Your task to perform on an android device: change timer sound Image 0: 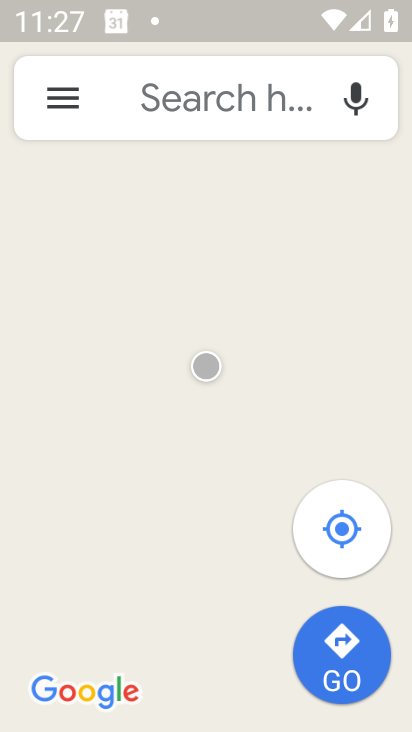
Step 0: press home button
Your task to perform on an android device: change timer sound Image 1: 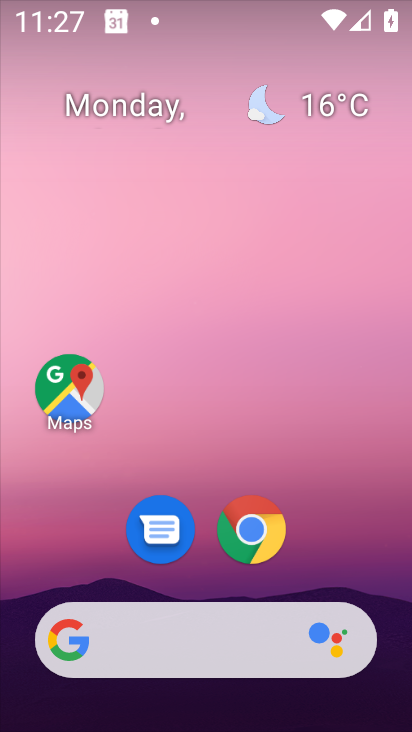
Step 1: drag from (198, 586) to (294, 10)
Your task to perform on an android device: change timer sound Image 2: 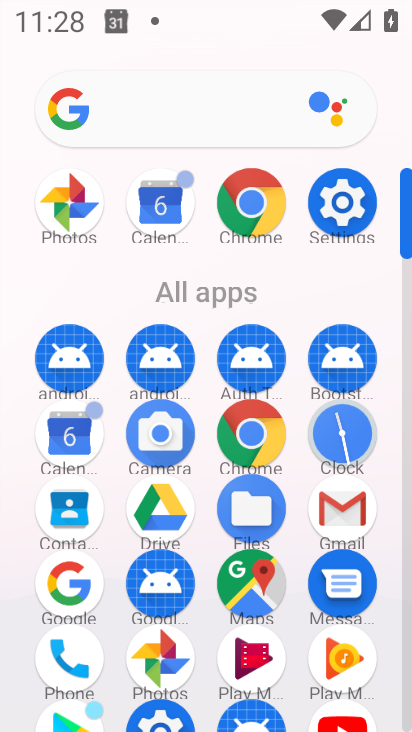
Step 2: click (351, 436)
Your task to perform on an android device: change timer sound Image 3: 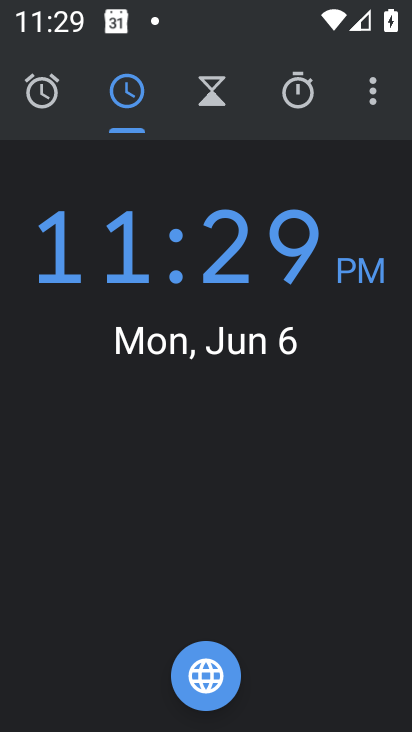
Step 3: click (378, 87)
Your task to perform on an android device: change timer sound Image 4: 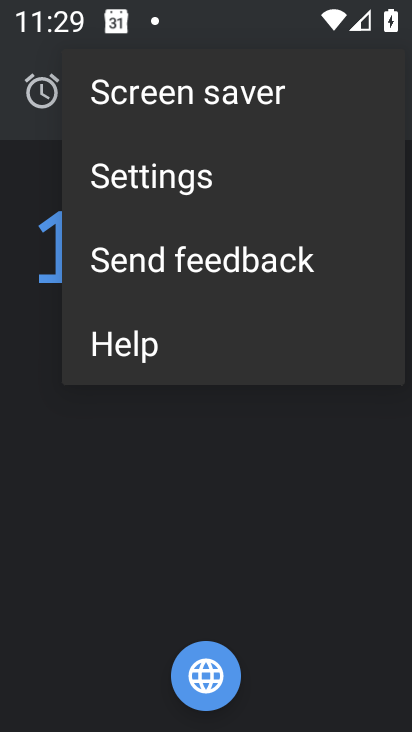
Step 4: click (204, 163)
Your task to perform on an android device: change timer sound Image 5: 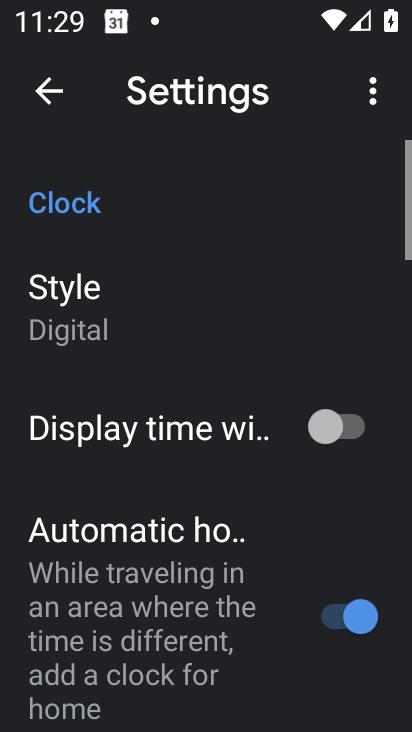
Step 5: drag from (231, 560) to (256, 112)
Your task to perform on an android device: change timer sound Image 6: 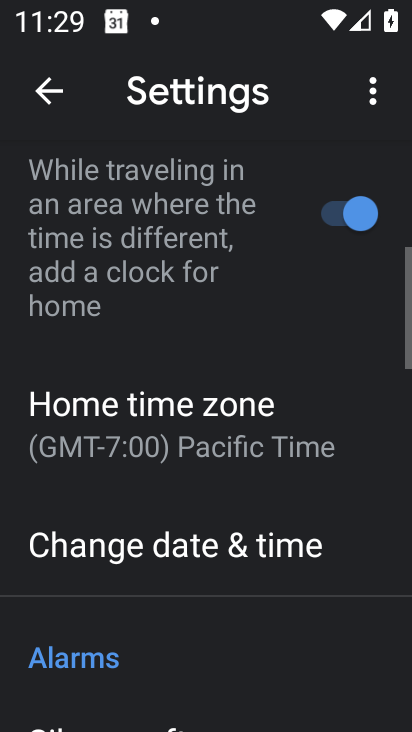
Step 6: drag from (137, 560) to (268, 93)
Your task to perform on an android device: change timer sound Image 7: 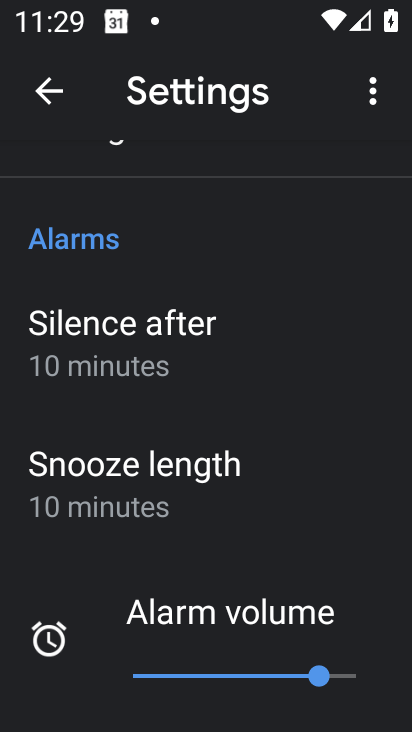
Step 7: drag from (230, 595) to (280, 208)
Your task to perform on an android device: change timer sound Image 8: 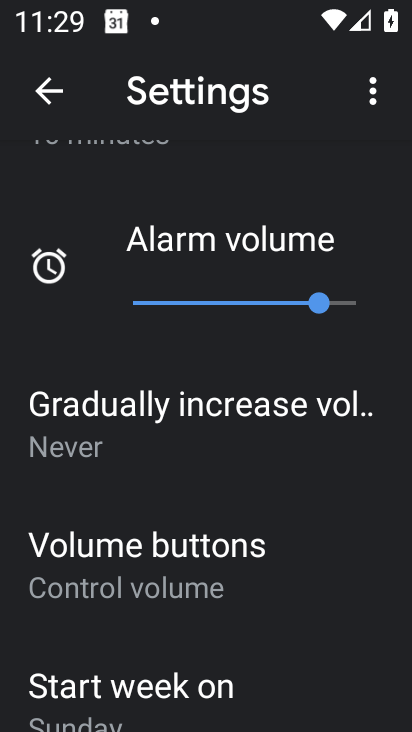
Step 8: drag from (187, 682) to (208, 299)
Your task to perform on an android device: change timer sound Image 9: 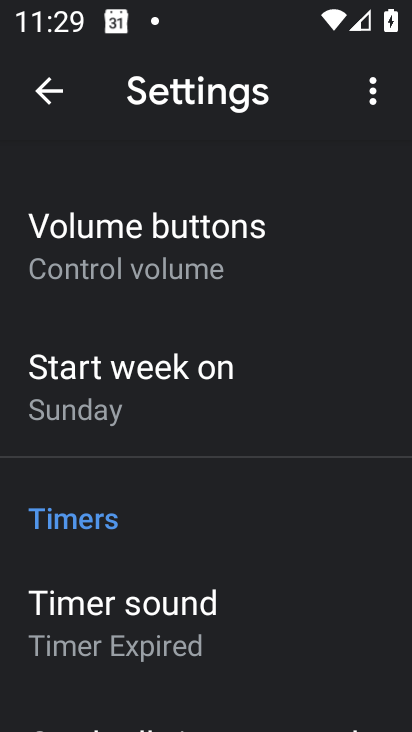
Step 9: click (162, 643)
Your task to perform on an android device: change timer sound Image 10: 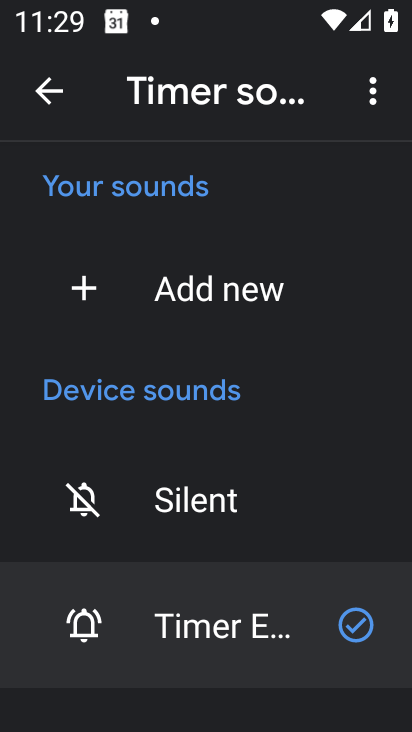
Step 10: click (189, 530)
Your task to perform on an android device: change timer sound Image 11: 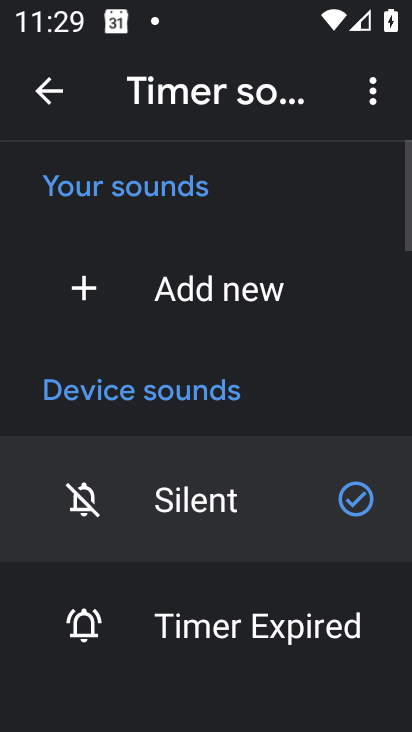
Step 11: task complete